Your task to perform on an android device: see tabs open on other devices in the chrome app Image 0: 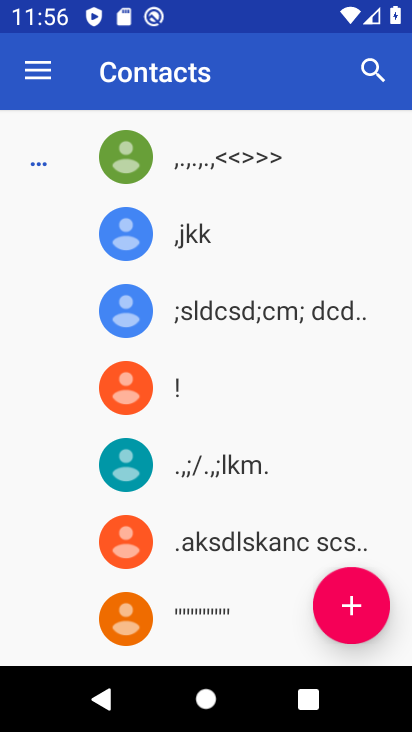
Step 0: press home button
Your task to perform on an android device: see tabs open on other devices in the chrome app Image 1: 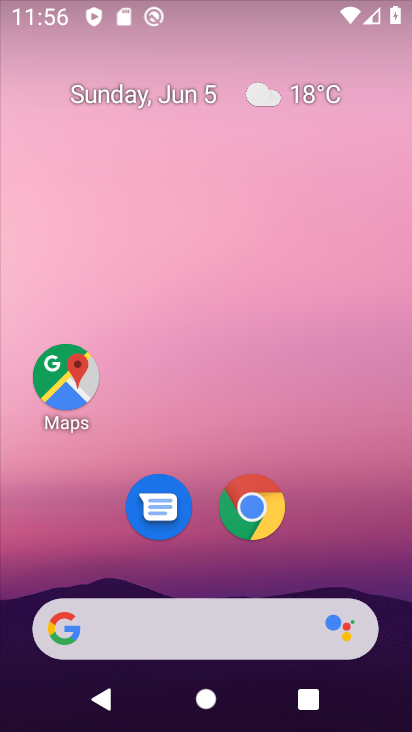
Step 1: click (252, 524)
Your task to perform on an android device: see tabs open on other devices in the chrome app Image 2: 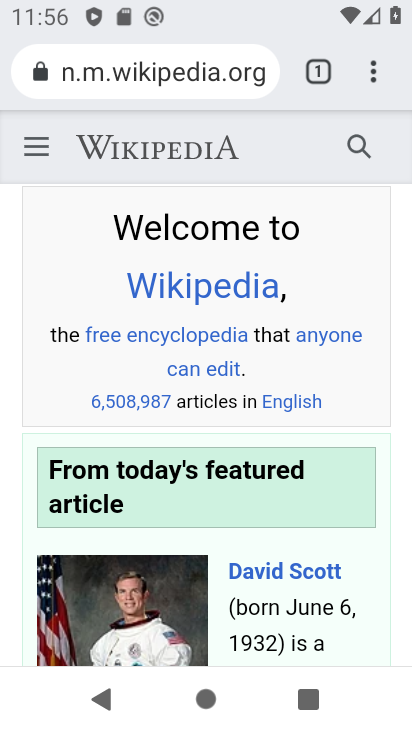
Step 2: click (382, 72)
Your task to perform on an android device: see tabs open on other devices in the chrome app Image 3: 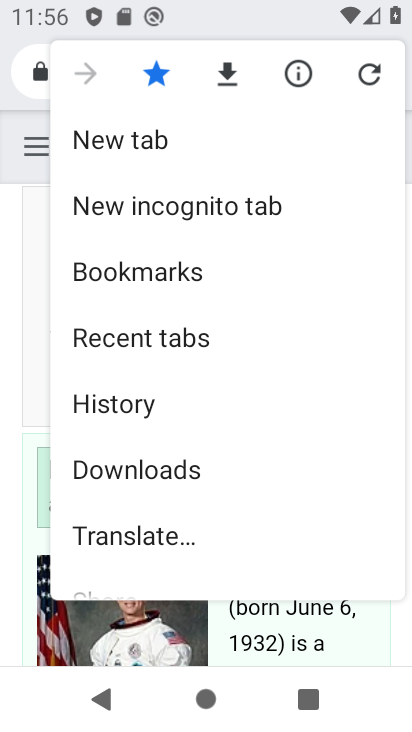
Step 3: click (179, 338)
Your task to perform on an android device: see tabs open on other devices in the chrome app Image 4: 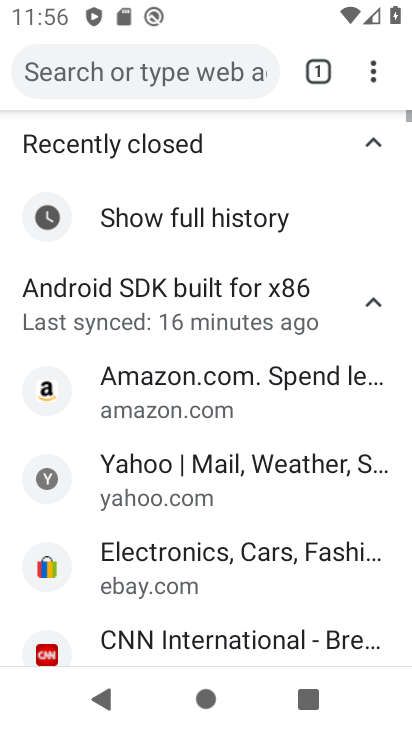
Step 4: task complete